Your task to perform on an android device: toggle wifi Image 0: 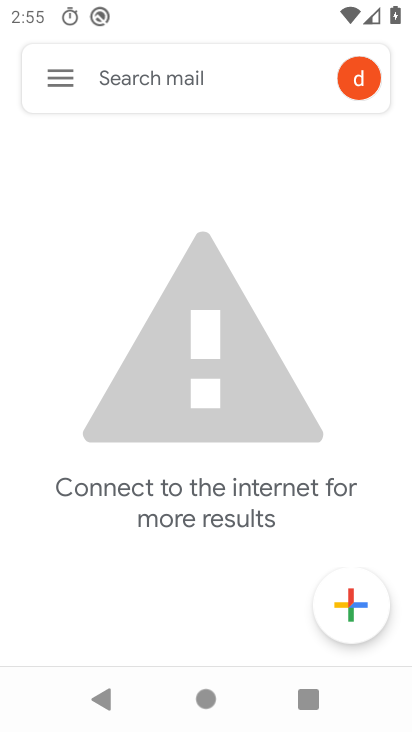
Step 0: press home button
Your task to perform on an android device: toggle wifi Image 1: 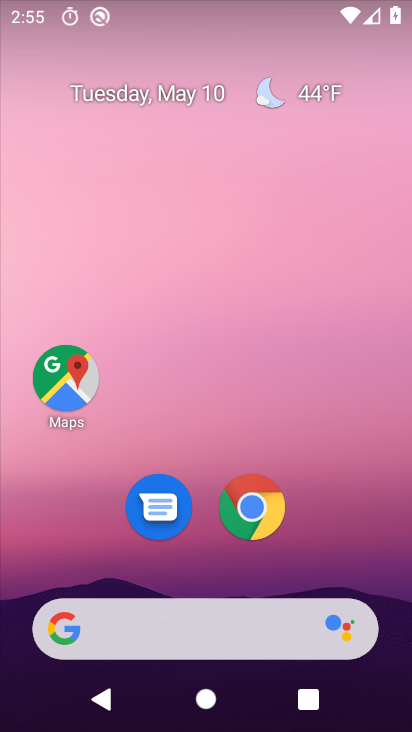
Step 1: click (193, 287)
Your task to perform on an android device: toggle wifi Image 2: 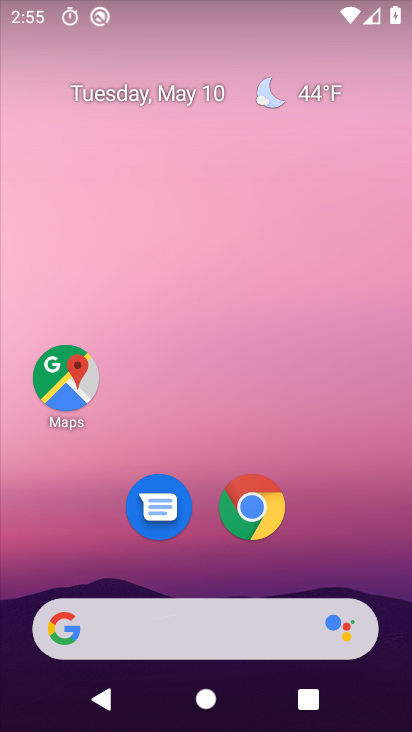
Step 2: drag from (202, 601) to (212, 176)
Your task to perform on an android device: toggle wifi Image 3: 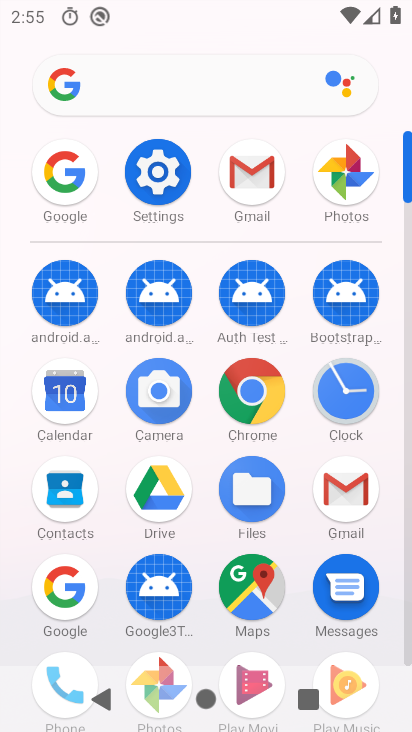
Step 3: click (132, 171)
Your task to perform on an android device: toggle wifi Image 4: 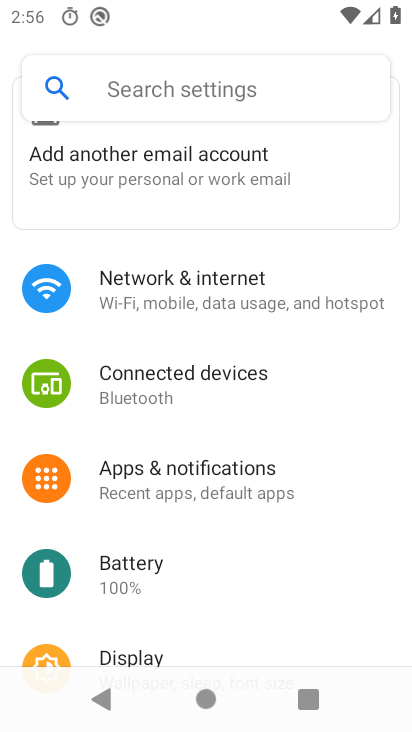
Step 4: click (136, 300)
Your task to perform on an android device: toggle wifi Image 5: 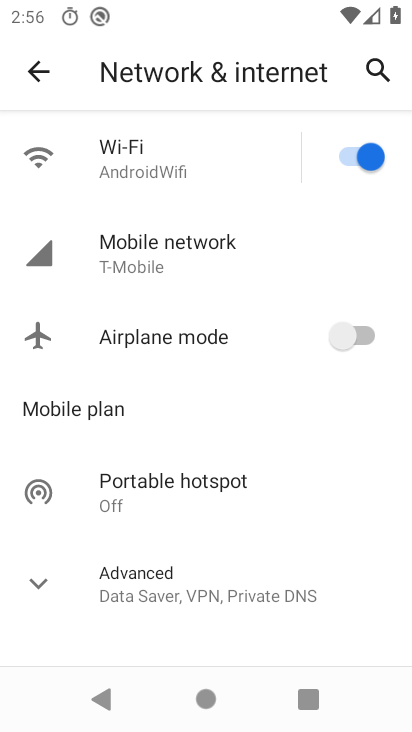
Step 5: click (349, 147)
Your task to perform on an android device: toggle wifi Image 6: 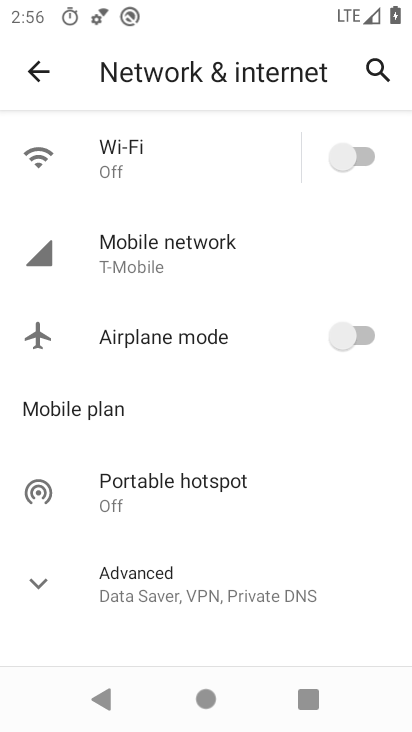
Step 6: task complete